Your task to perform on an android device: Open Chrome and go to the settings page Image 0: 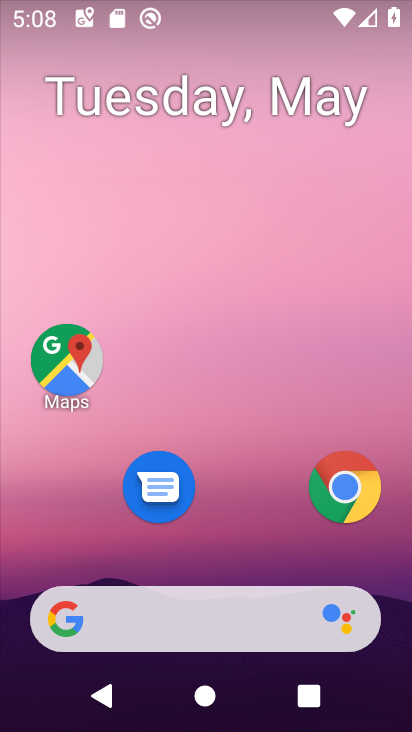
Step 0: click (321, 515)
Your task to perform on an android device: Open Chrome and go to the settings page Image 1: 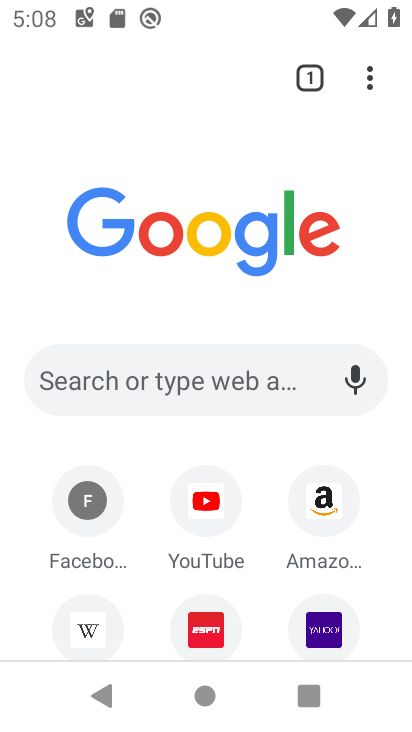
Step 1: click (366, 99)
Your task to perform on an android device: Open Chrome and go to the settings page Image 2: 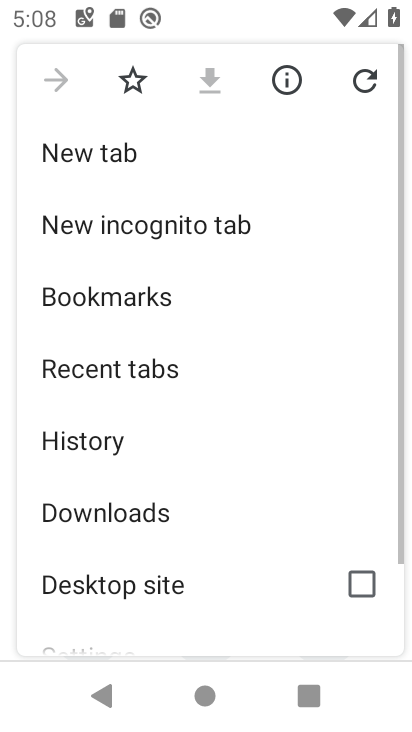
Step 2: drag from (178, 510) to (249, 229)
Your task to perform on an android device: Open Chrome and go to the settings page Image 3: 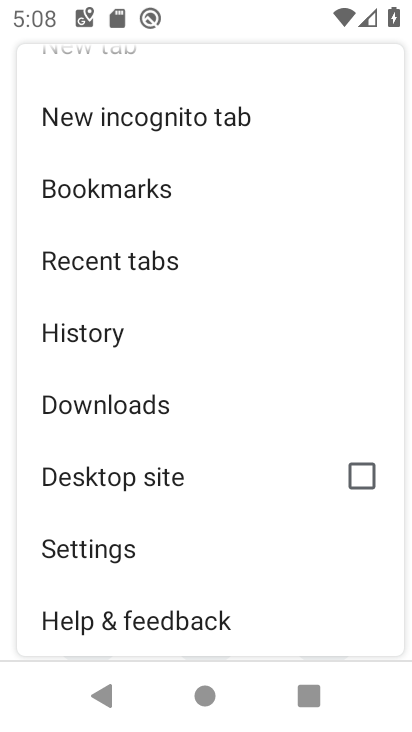
Step 3: click (170, 533)
Your task to perform on an android device: Open Chrome and go to the settings page Image 4: 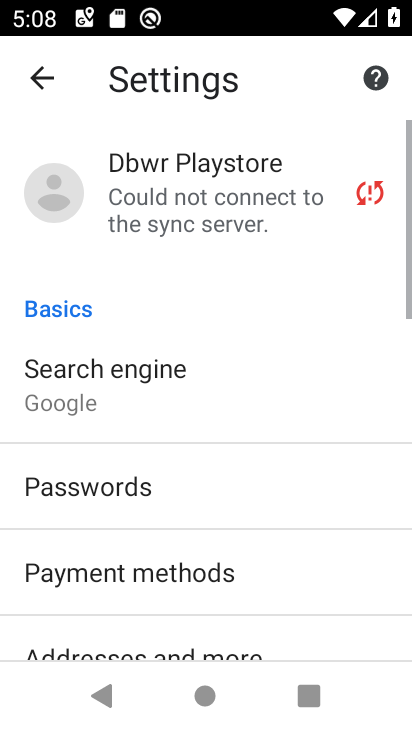
Step 4: task complete